Your task to perform on an android device: delete browsing data in the chrome app Image 0: 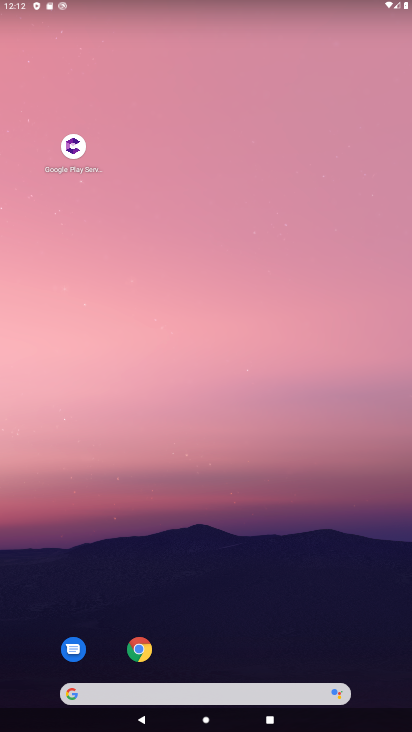
Step 0: click (140, 652)
Your task to perform on an android device: delete browsing data in the chrome app Image 1: 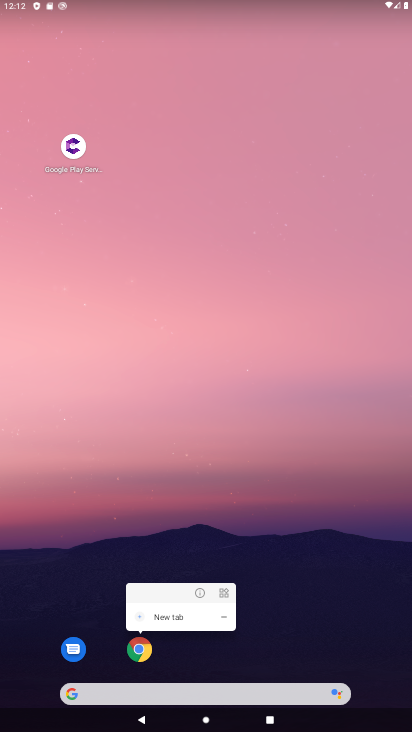
Step 1: click (141, 652)
Your task to perform on an android device: delete browsing data in the chrome app Image 2: 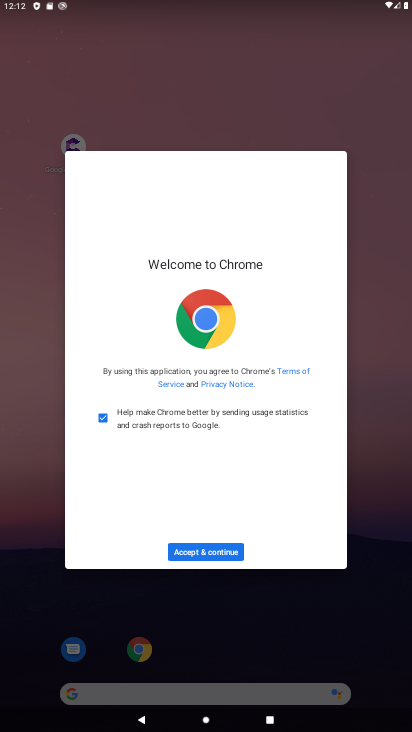
Step 2: click (236, 548)
Your task to perform on an android device: delete browsing data in the chrome app Image 3: 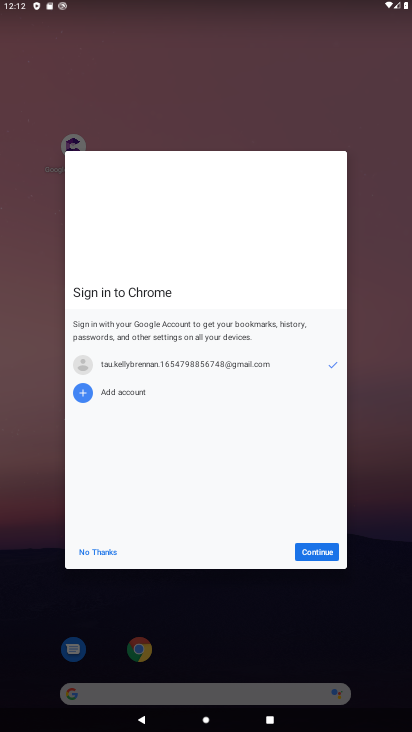
Step 3: click (307, 555)
Your task to perform on an android device: delete browsing data in the chrome app Image 4: 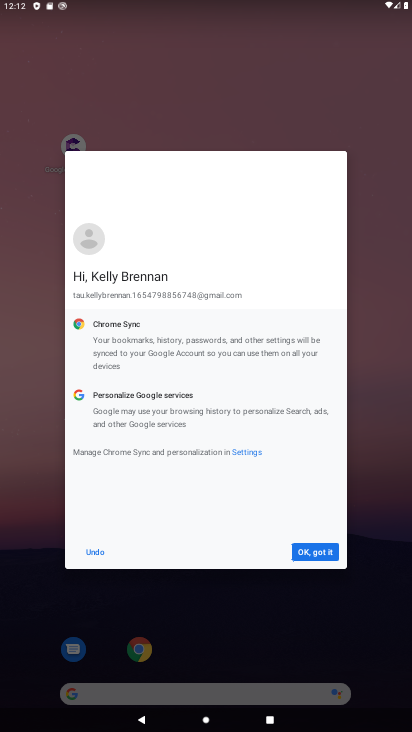
Step 4: click (307, 555)
Your task to perform on an android device: delete browsing data in the chrome app Image 5: 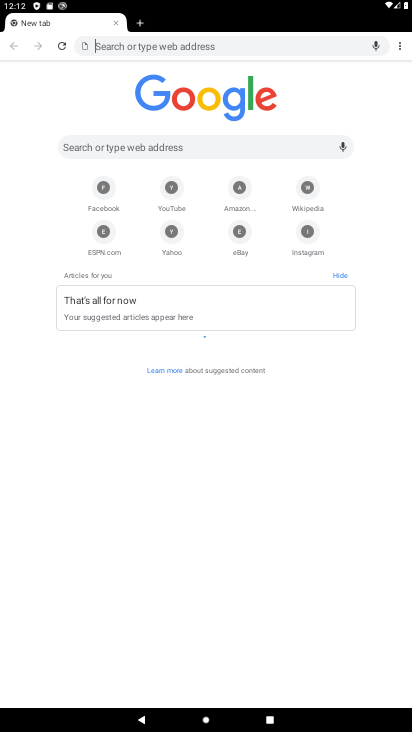
Step 5: click (395, 47)
Your task to perform on an android device: delete browsing data in the chrome app Image 6: 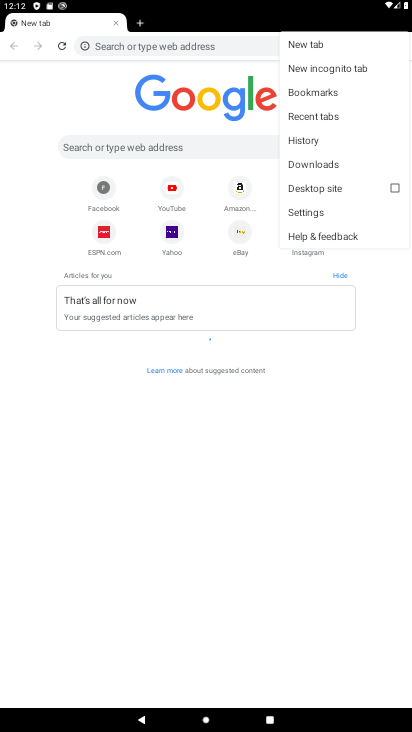
Step 6: click (334, 212)
Your task to perform on an android device: delete browsing data in the chrome app Image 7: 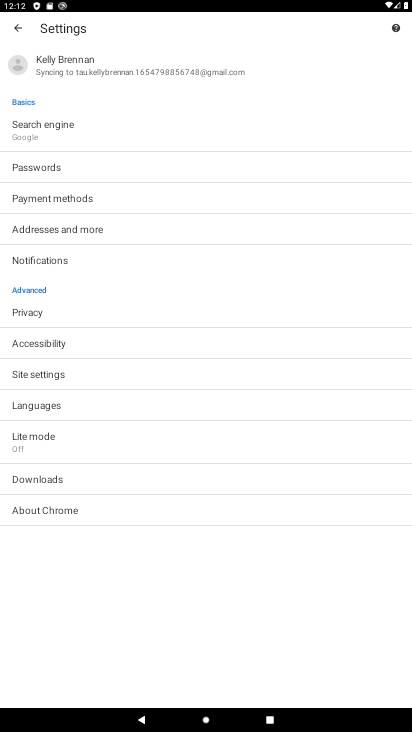
Step 7: click (51, 319)
Your task to perform on an android device: delete browsing data in the chrome app Image 8: 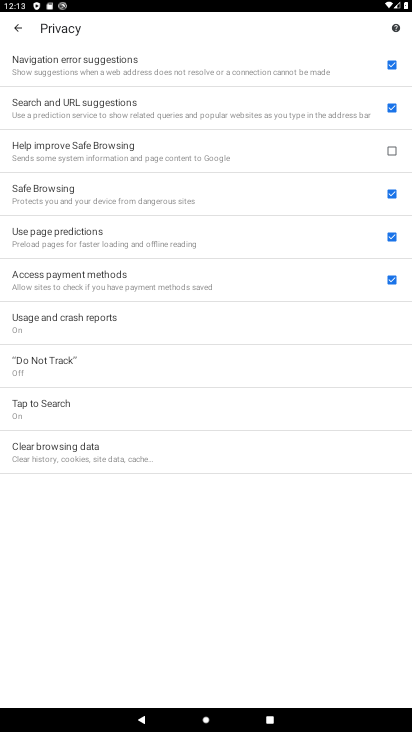
Step 8: click (73, 446)
Your task to perform on an android device: delete browsing data in the chrome app Image 9: 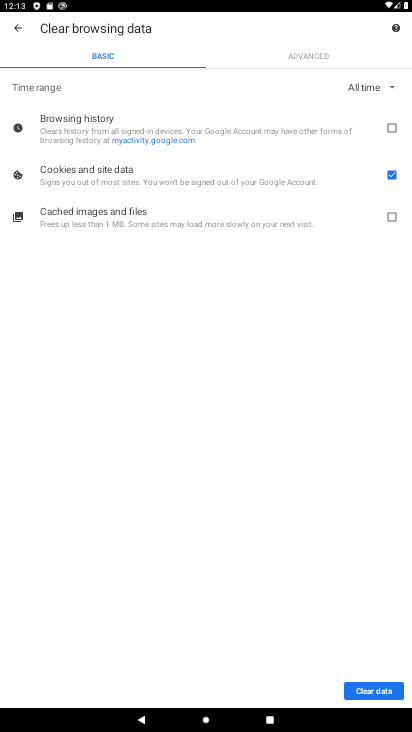
Step 9: click (370, 692)
Your task to perform on an android device: delete browsing data in the chrome app Image 10: 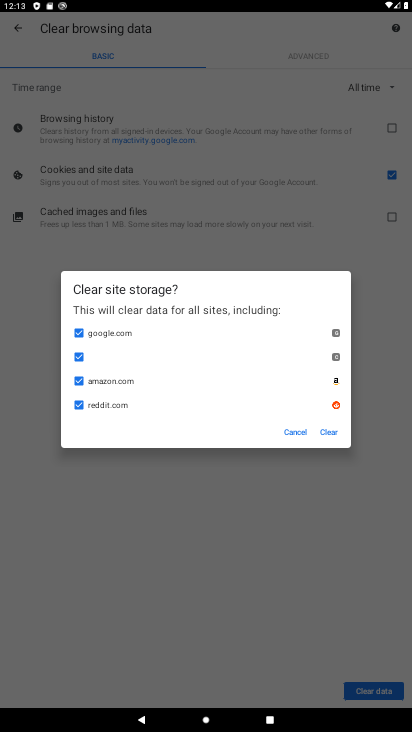
Step 10: click (292, 430)
Your task to perform on an android device: delete browsing data in the chrome app Image 11: 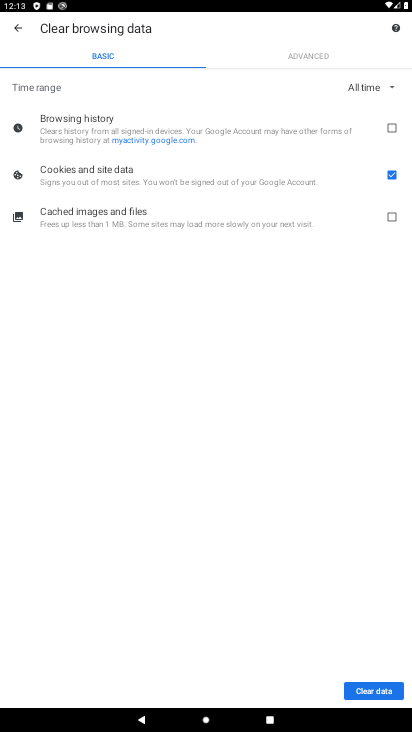
Step 11: click (388, 127)
Your task to perform on an android device: delete browsing data in the chrome app Image 12: 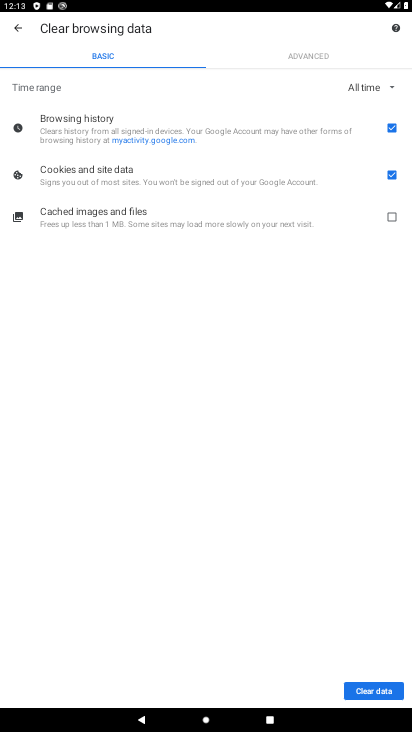
Step 12: click (389, 211)
Your task to perform on an android device: delete browsing data in the chrome app Image 13: 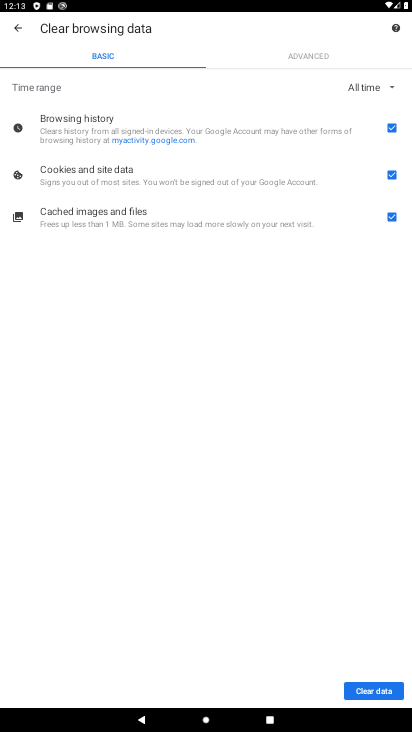
Step 13: click (376, 693)
Your task to perform on an android device: delete browsing data in the chrome app Image 14: 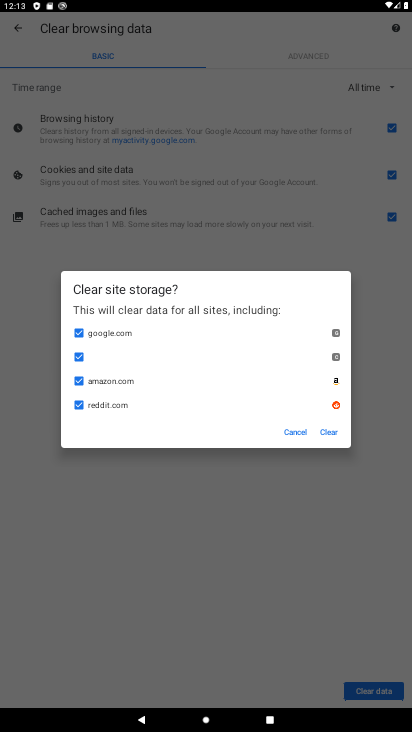
Step 14: click (327, 432)
Your task to perform on an android device: delete browsing data in the chrome app Image 15: 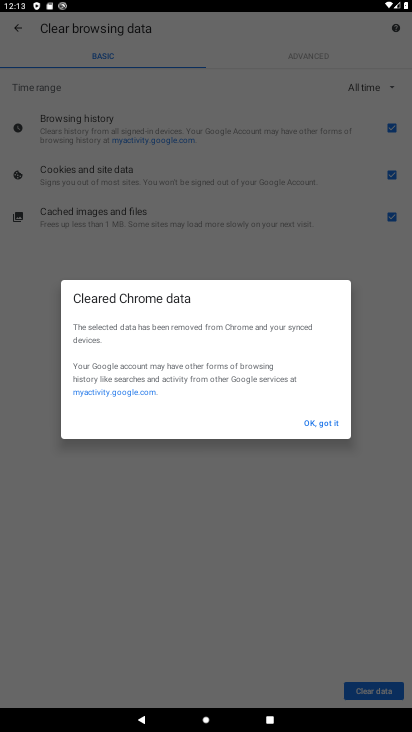
Step 15: click (316, 423)
Your task to perform on an android device: delete browsing data in the chrome app Image 16: 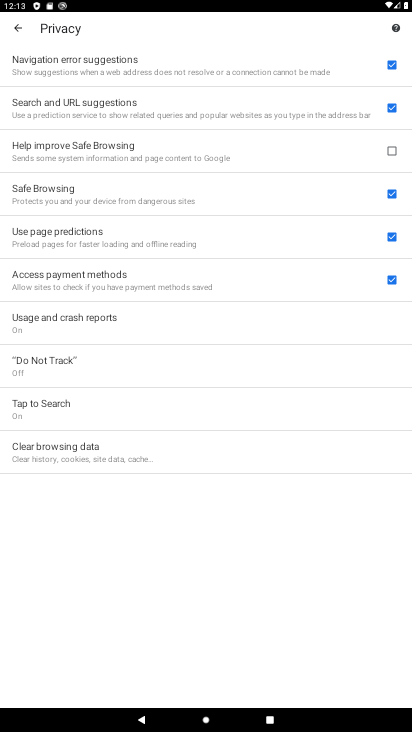
Step 16: task complete